Your task to perform on an android device: check android version Image 0: 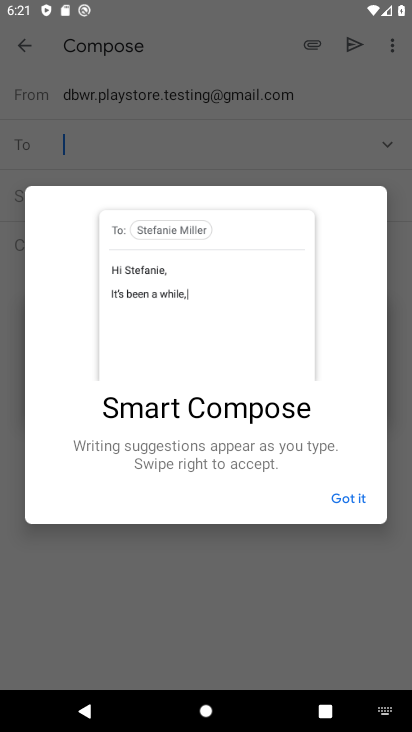
Step 0: press home button
Your task to perform on an android device: check android version Image 1: 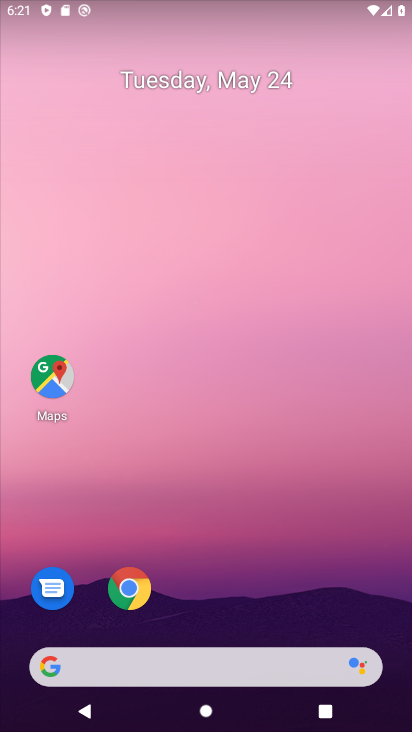
Step 1: drag from (275, 679) to (292, 70)
Your task to perform on an android device: check android version Image 2: 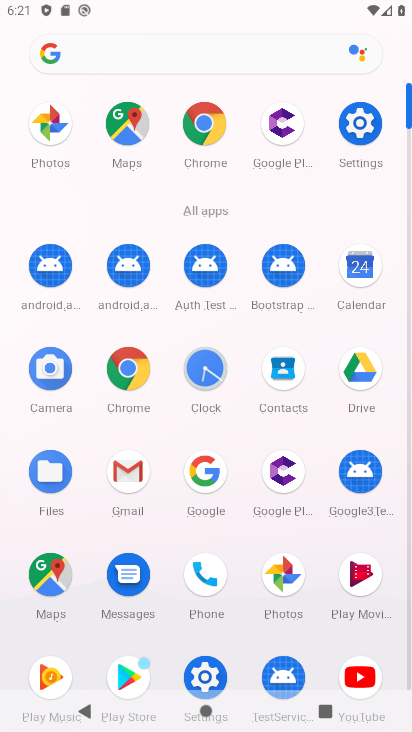
Step 2: click (356, 121)
Your task to perform on an android device: check android version Image 3: 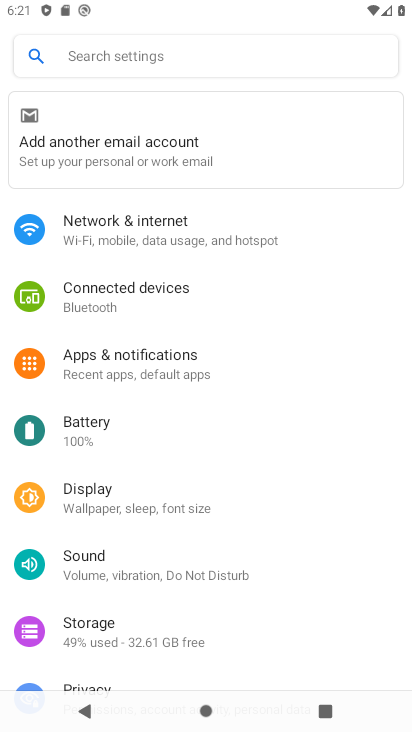
Step 3: drag from (262, 599) to (275, 5)
Your task to perform on an android device: check android version Image 4: 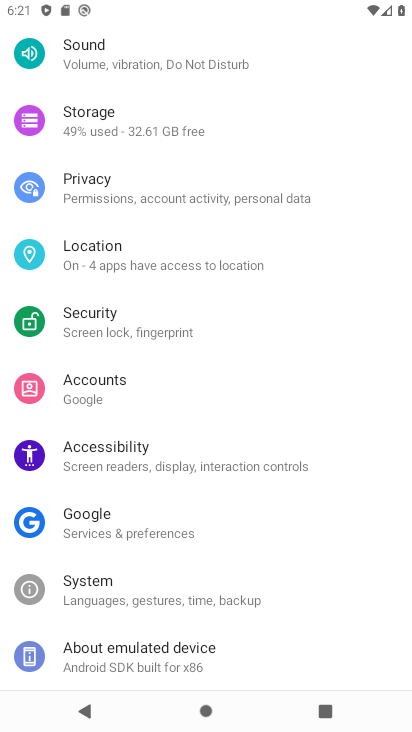
Step 4: click (158, 641)
Your task to perform on an android device: check android version Image 5: 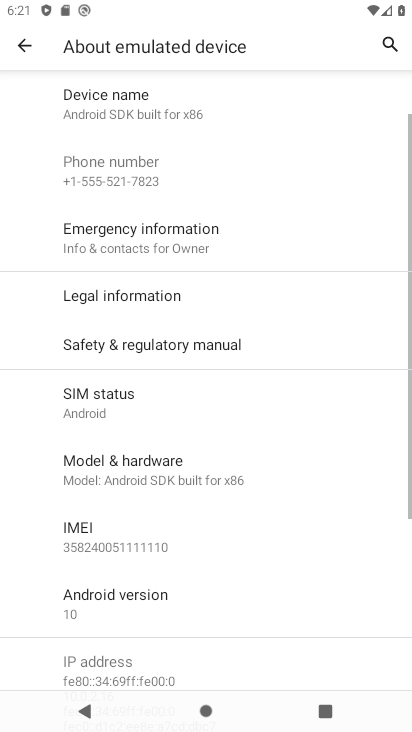
Step 5: click (156, 604)
Your task to perform on an android device: check android version Image 6: 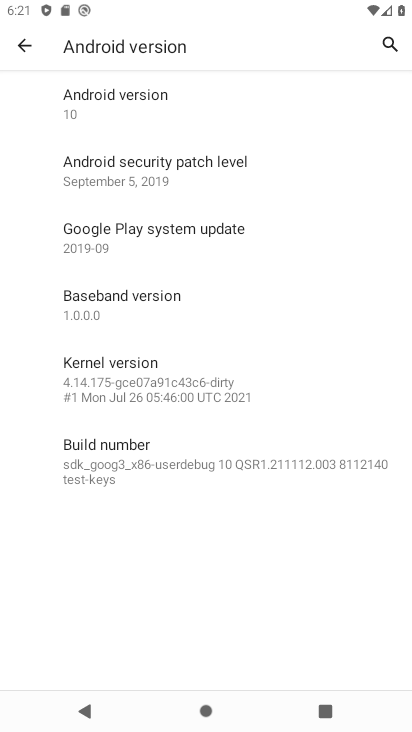
Step 6: task complete